Your task to perform on an android device: Open calendar and show me the first week of next month Image 0: 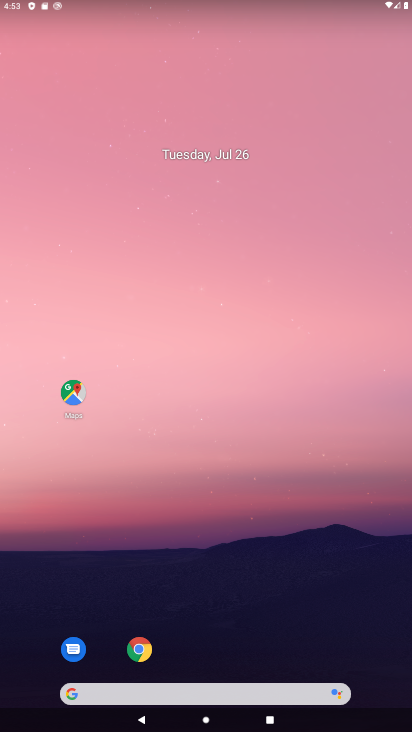
Step 0: drag from (250, 639) to (190, 76)
Your task to perform on an android device: Open calendar and show me the first week of next month Image 1: 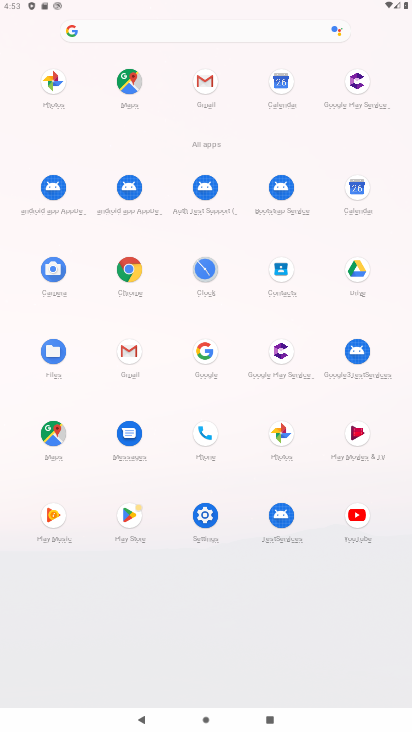
Step 1: click (356, 191)
Your task to perform on an android device: Open calendar and show me the first week of next month Image 2: 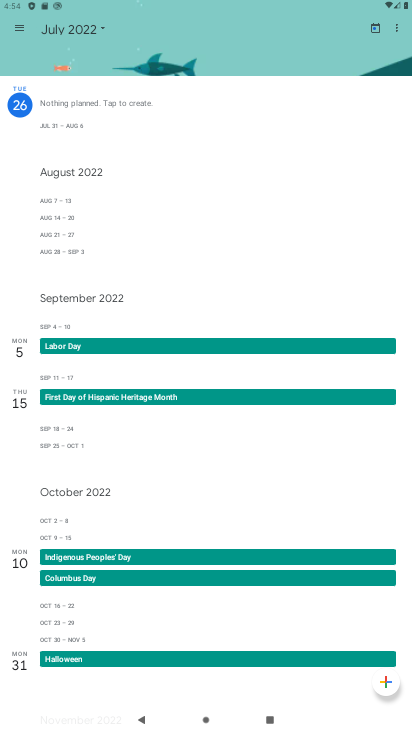
Step 2: click (15, 31)
Your task to perform on an android device: Open calendar and show me the first week of next month Image 3: 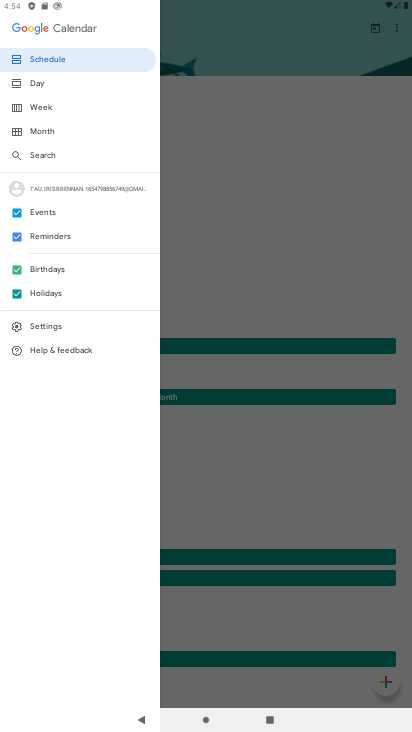
Step 3: click (47, 107)
Your task to perform on an android device: Open calendar and show me the first week of next month Image 4: 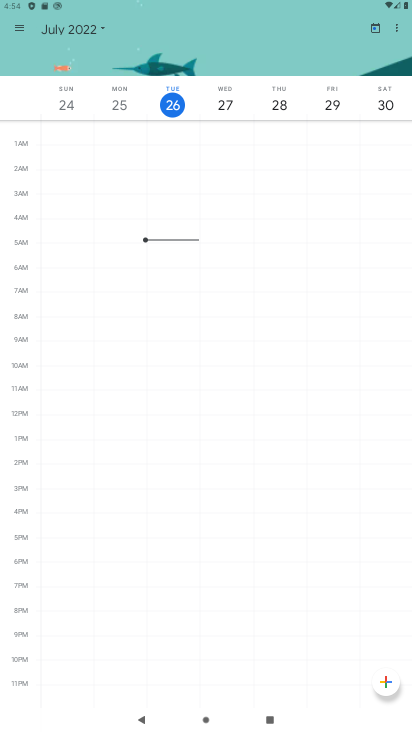
Step 4: click (102, 30)
Your task to perform on an android device: Open calendar and show me the first week of next month Image 5: 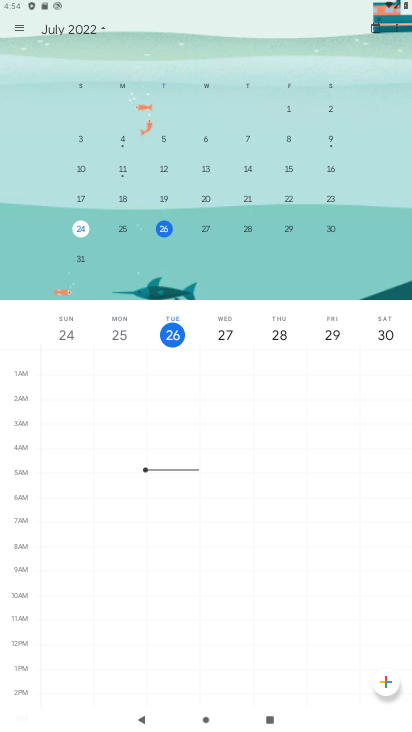
Step 5: task complete